Your task to perform on an android device: Search for pizza restaurants on Maps Image 0: 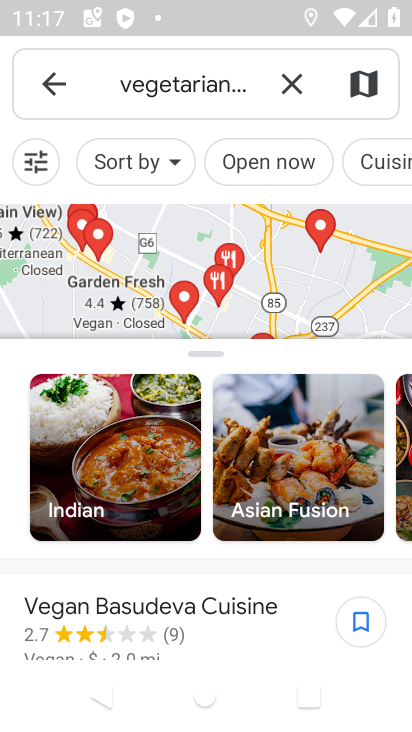
Step 0: click (283, 89)
Your task to perform on an android device: Search for pizza restaurants on Maps Image 1: 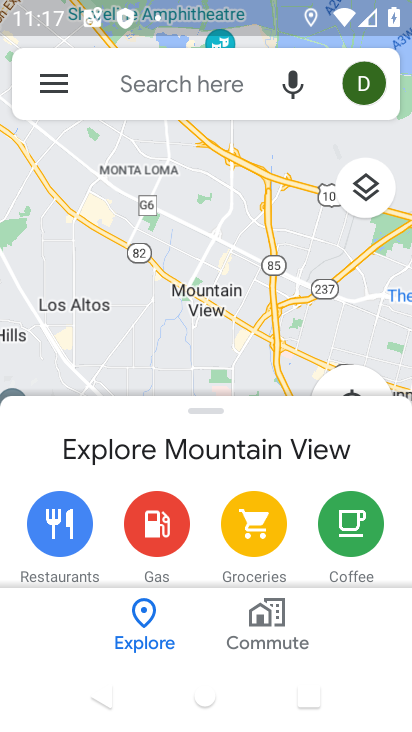
Step 1: click (133, 88)
Your task to perform on an android device: Search for pizza restaurants on Maps Image 2: 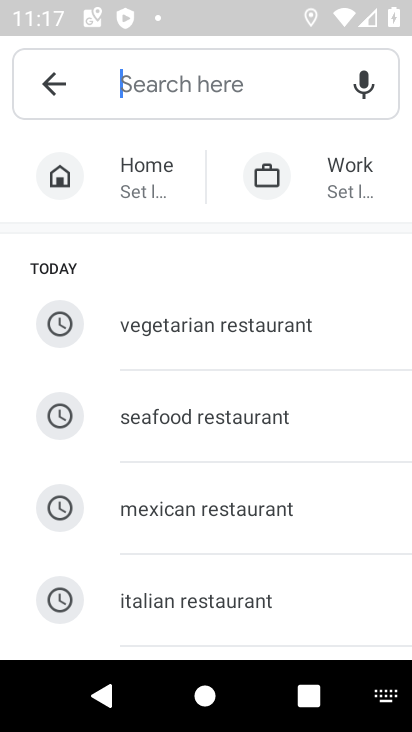
Step 2: type "pizza restaurant "
Your task to perform on an android device: Search for pizza restaurants on Maps Image 3: 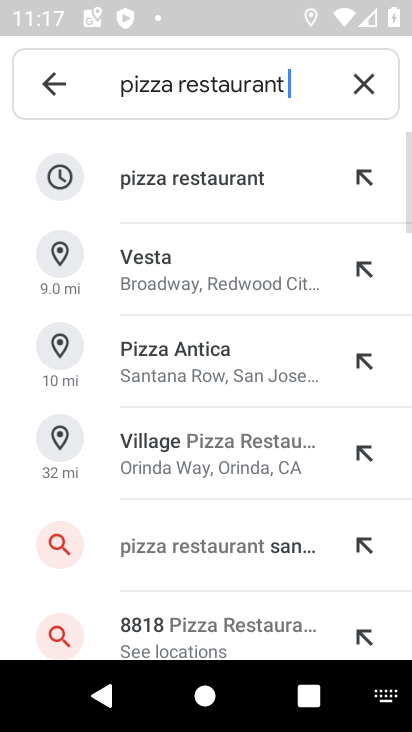
Step 3: click (205, 175)
Your task to perform on an android device: Search for pizza restaurants on Maps Image 4: 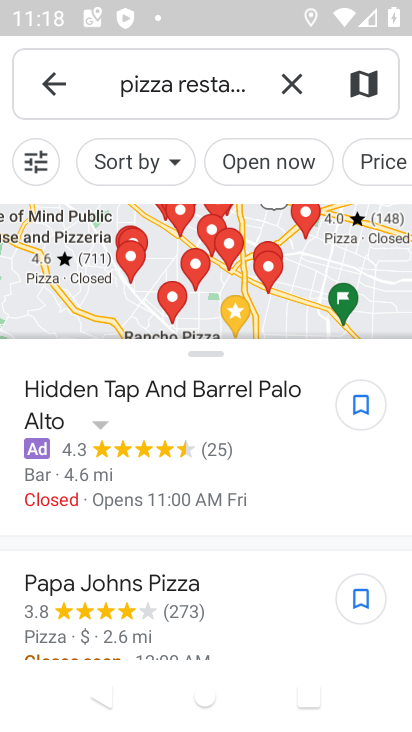
Step 4: task complete